Your task to perform on an android device: add a label to a message in the gmail app Image 0: 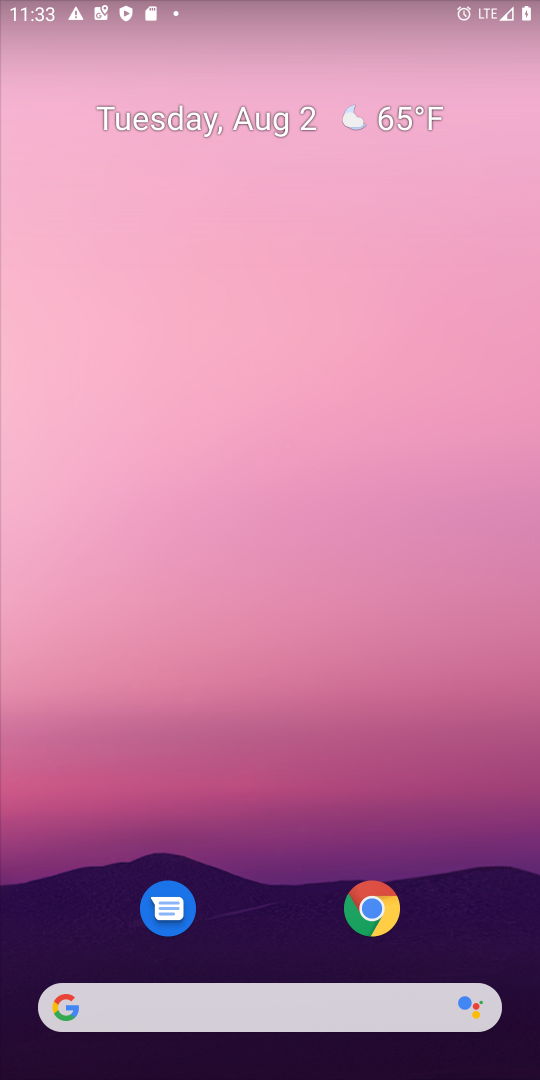
Step 0: drag from (302, 812) to (376, 197)
Your task to perform on an android device: add a label to a message in the gmail app Image 1: 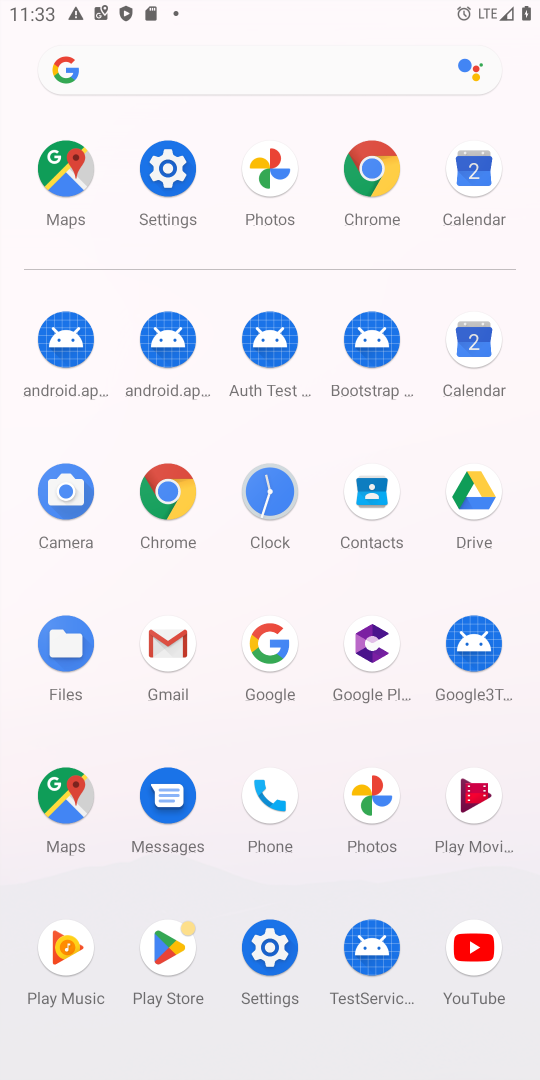
Step 1: click (179, 657)
Your task to perform on an android device: add a label to a message in the gmail app Image 2: 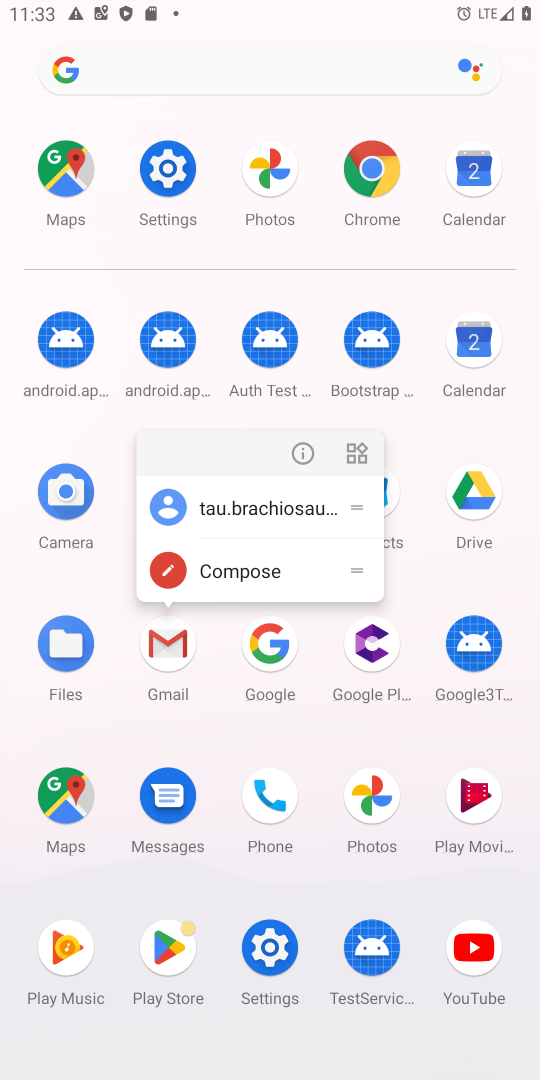
Step 2: click (160, 661)
Your task to perform on an android device: add a label to a message in the gmail app Image 3: 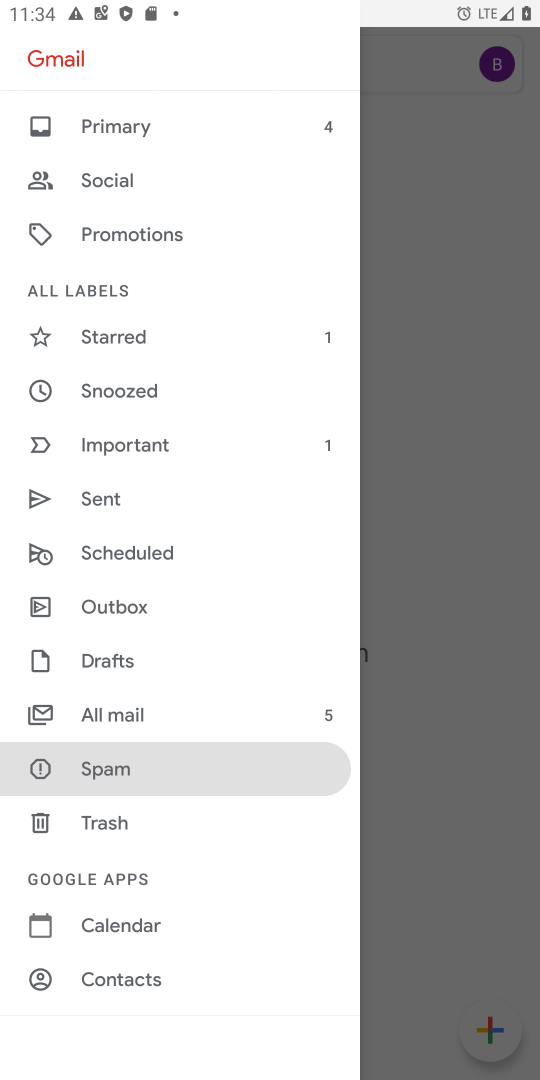
Step 3: click (158, 722)
Your task to perform on an android device: add a label to a message in the gmail app Image 4: 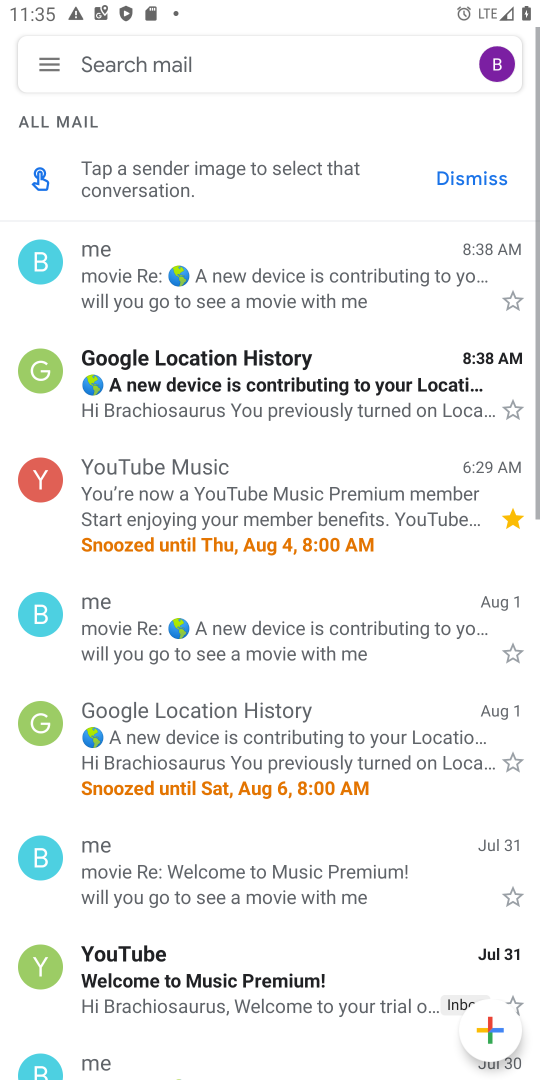
Step 4: click (268, 289)
Your task to perform on an android device: add a label to a message in the gmail app Image 5: 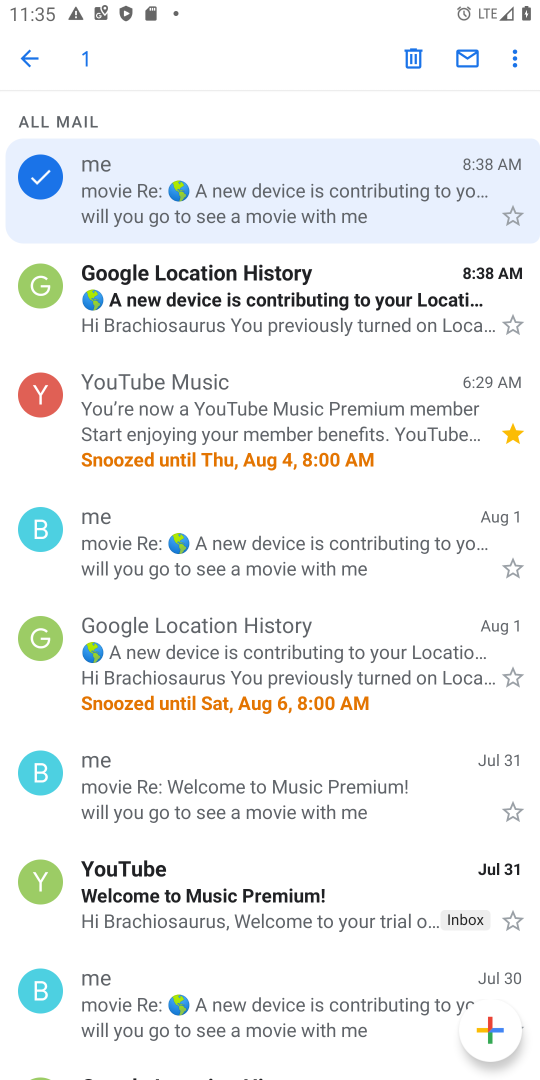
Step 5: click (514, 55)
Your task to perform on an android device: add a label to a message in the gmail app Image 6: 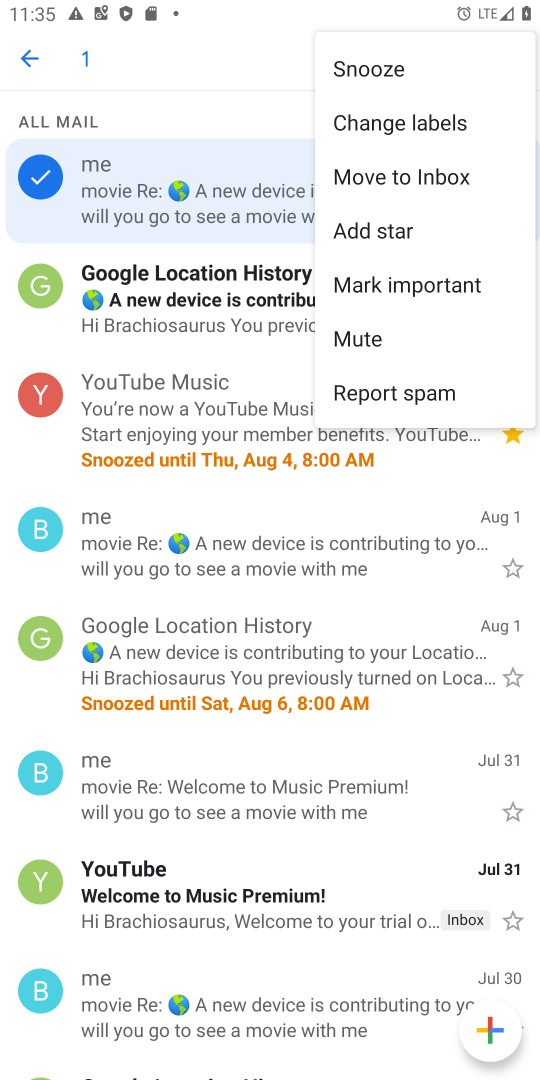
Step 6: click (449, 126)
Your task to perform on an android device: add a label to a message in the gmail app Image 7: 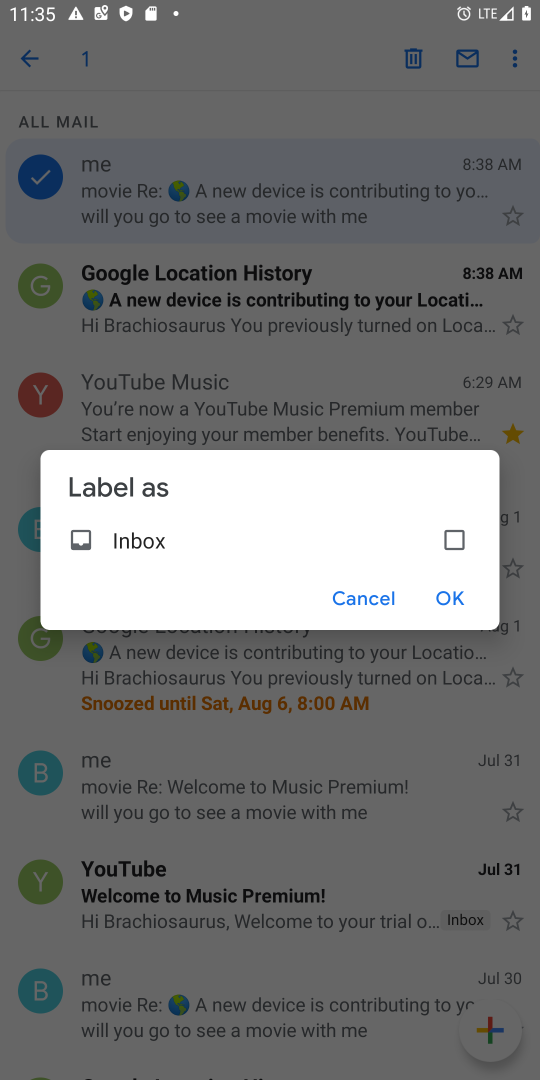
Step 7: click (445, 541)
Your task to perform on an android device: add a label to a message in the gmail app Image 8: 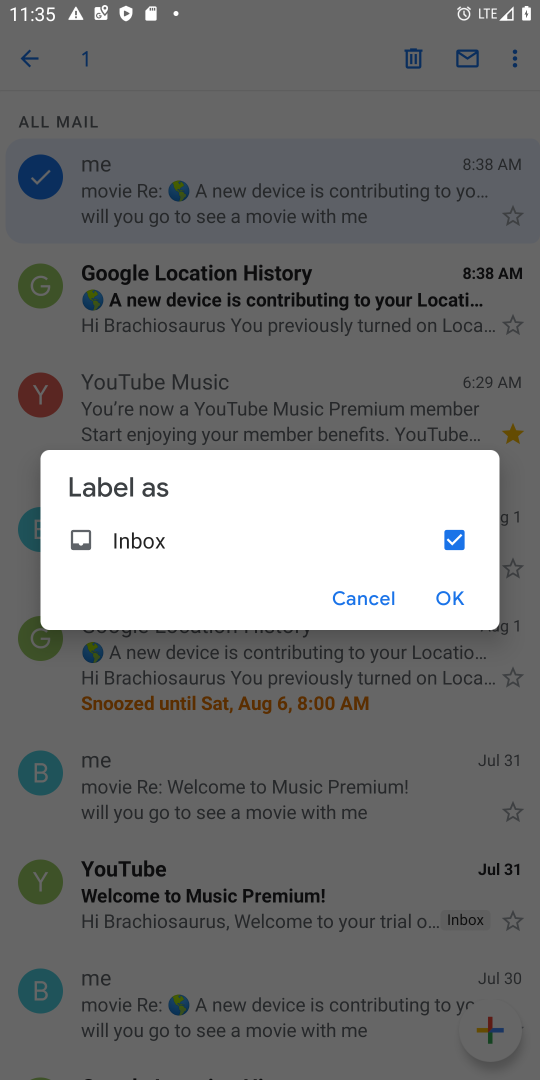
Step 8: click (464, 599)
Your task to perform on an android device: add a label to a message in the gmail app Image 9: 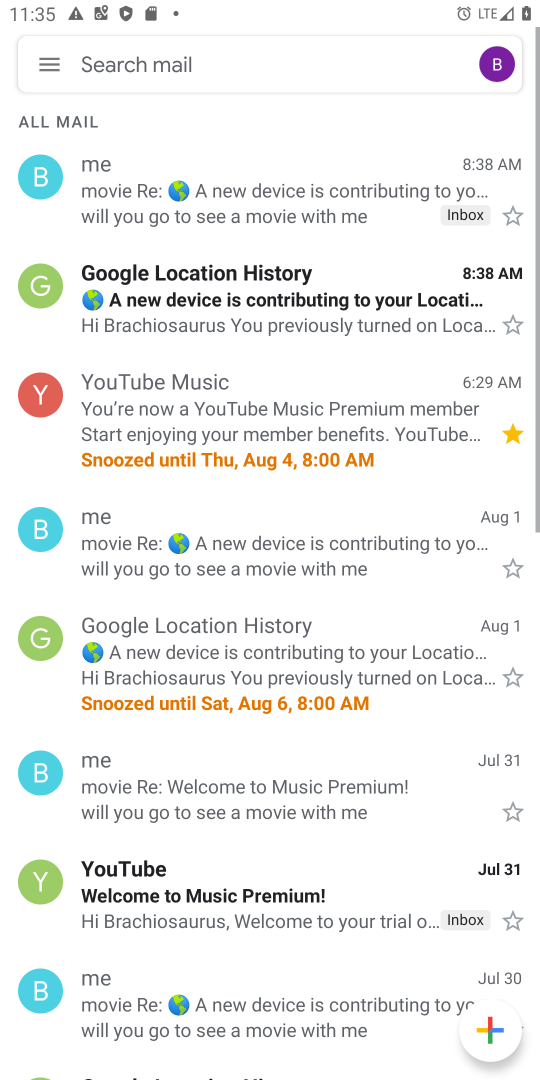
Step 9: click (450, 597)
Your task to perform on an android device: add a label to a message in the gmail app Image 10: 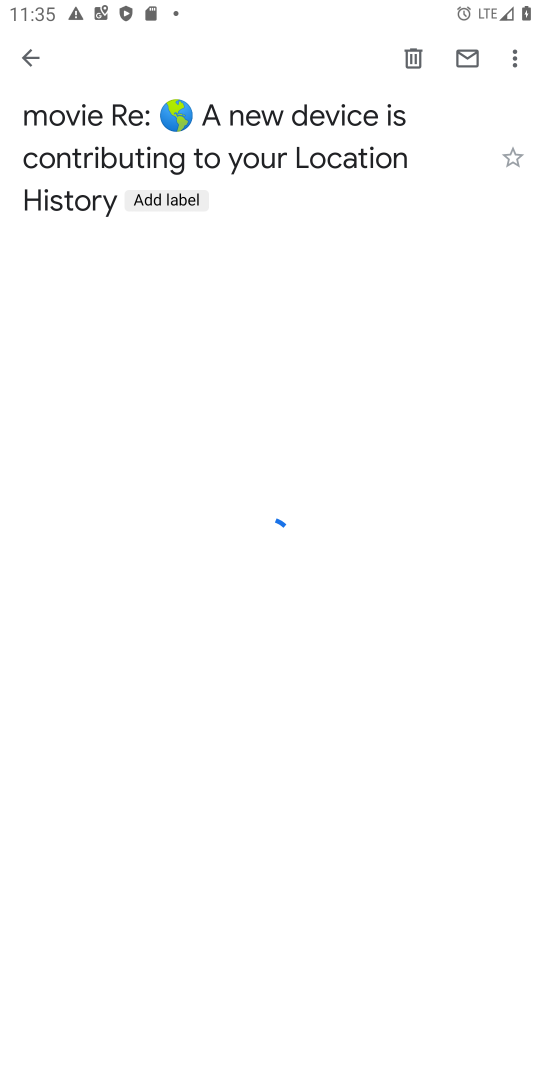
Step 10: task complete